Your task to perform on an android device: toggle notifications settings in the gmail app Image 0: 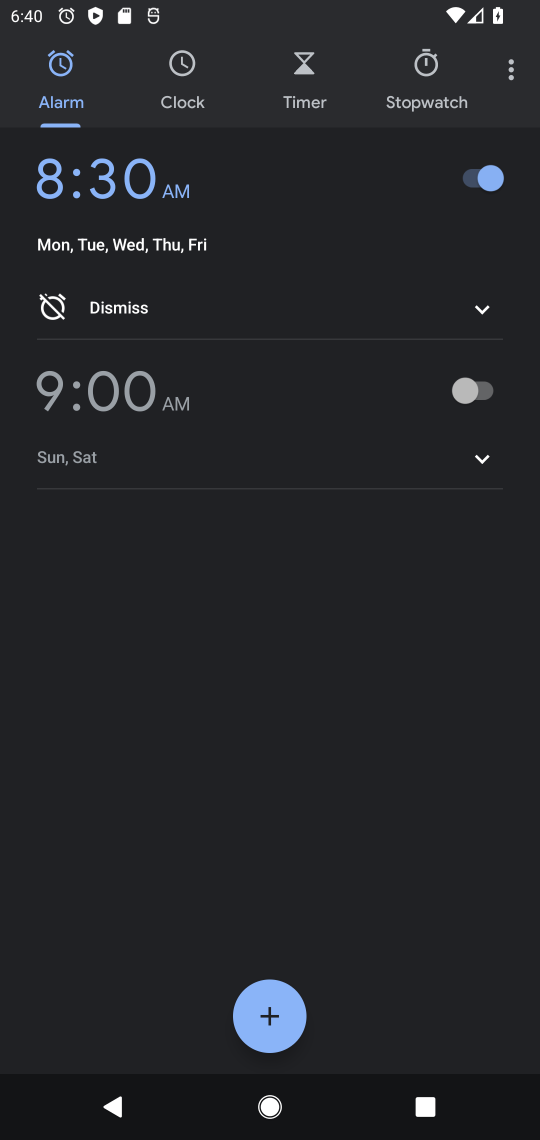
Step 0: press home button
Your task to perform on an android device: toggle notifications settings in the gmail app Image 1: 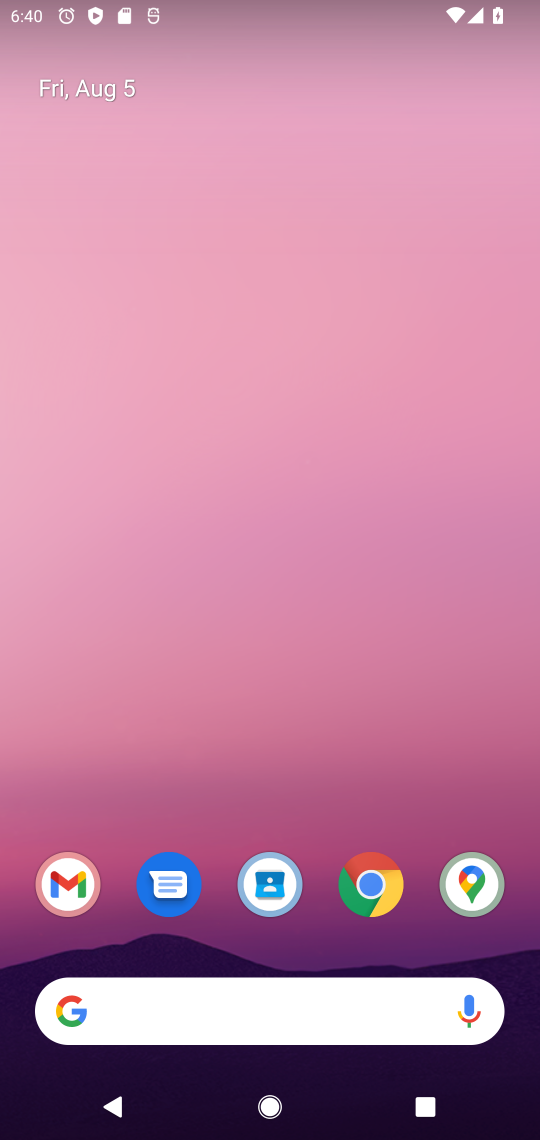
Step 1: drag from (323, 827) to (401, 119)
Your task to perform on an android device: toggle notifications settings in the gmail app Image 2: 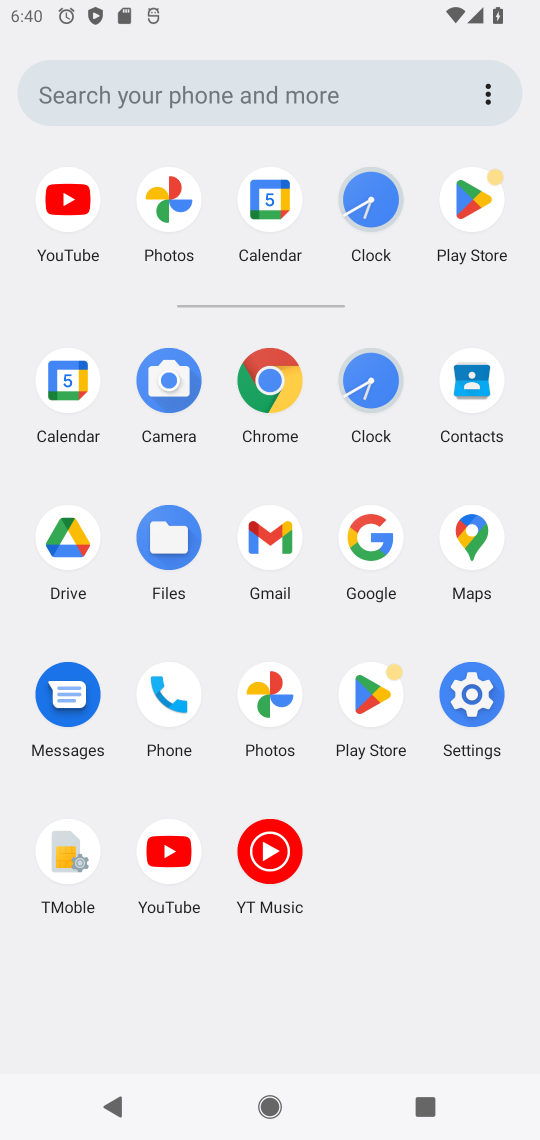
Step 2: click (265, 522)
Your task to perform on an android device: toggle notifications settings in the gmail app Image 3: 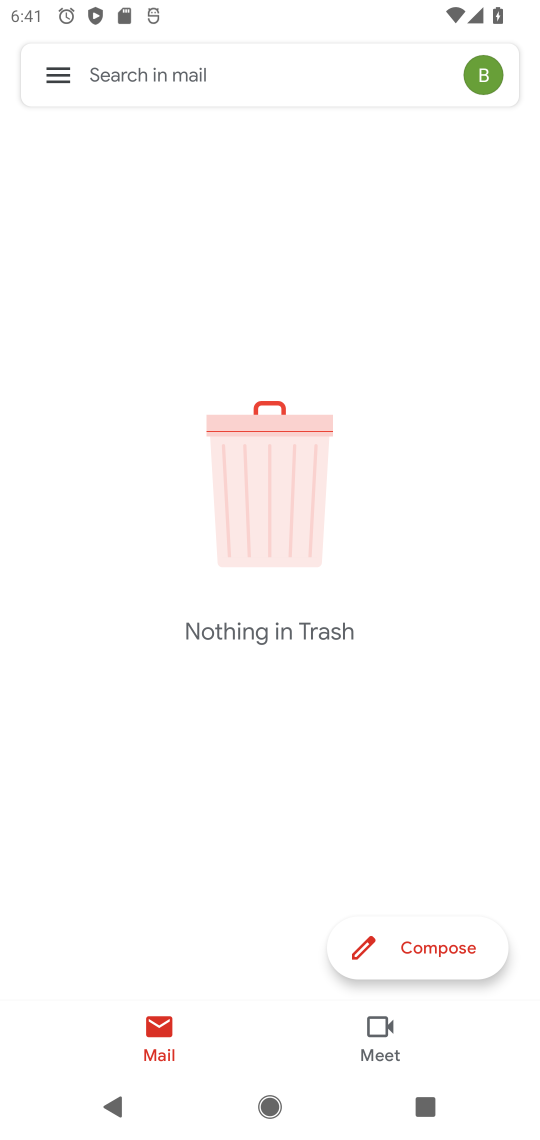
Step 3: click (50, 66)
Your task to perform on an android device: toggle notifications settings in the gmail app Image 4: 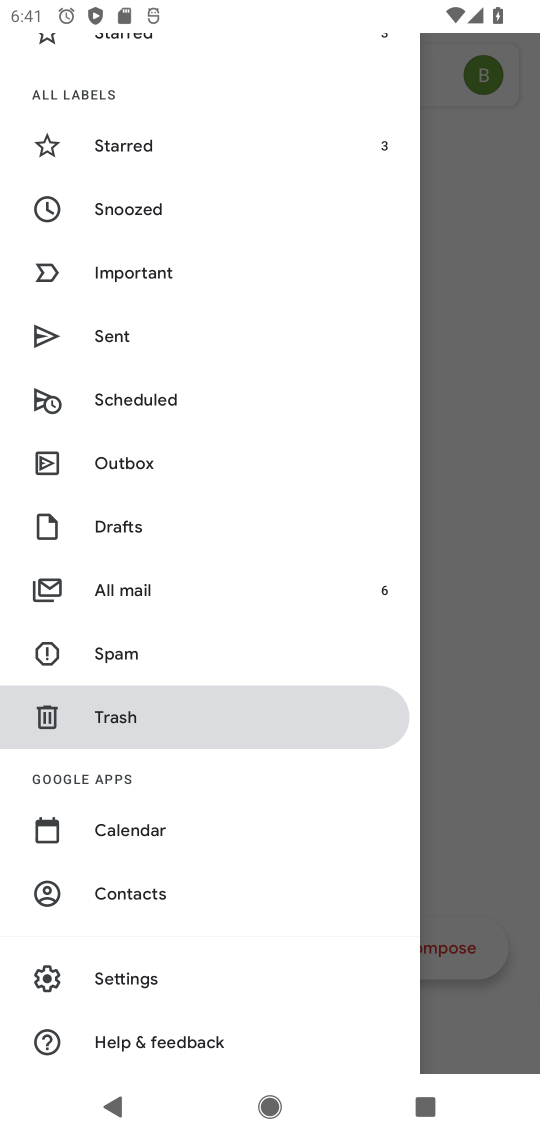
Step 4: click (170, 972)
Your task to perform on an android device: toggle notifications settings in the gmail app Image 5: 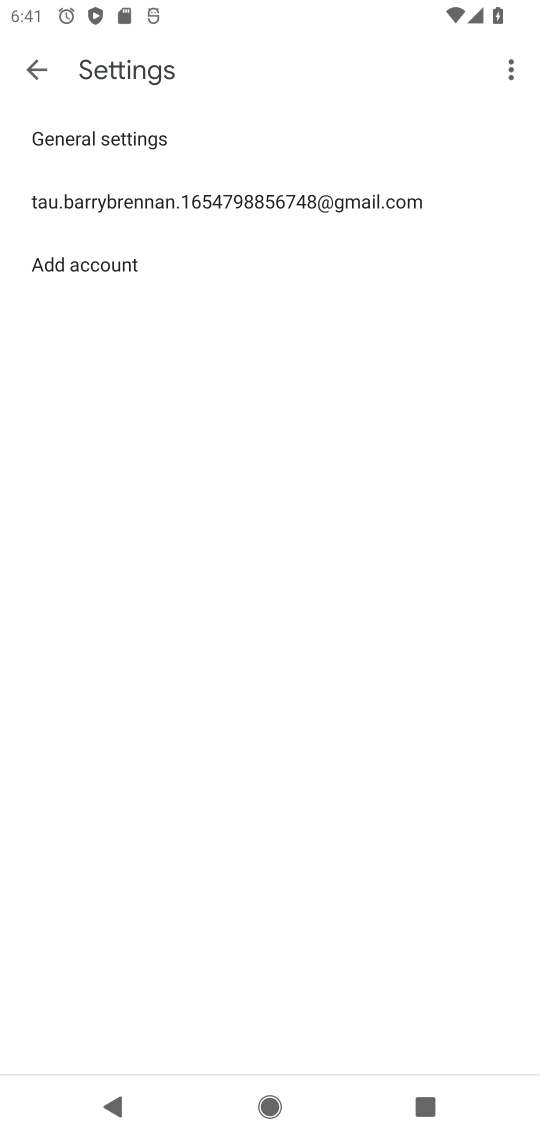
Step 5: click (186, 133)
Your task to perform on an android device: toggle notifications settings in the gmail app Image 6: 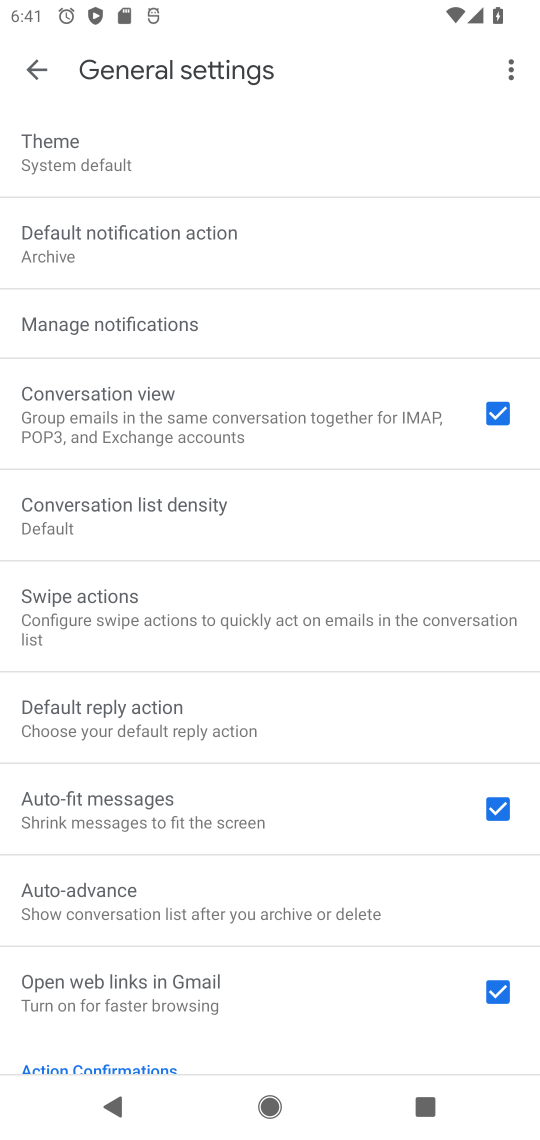
Step 6: click (217, 316)
Your task to perform on an android device: toggle notifications settings in the gmail app Image 7: 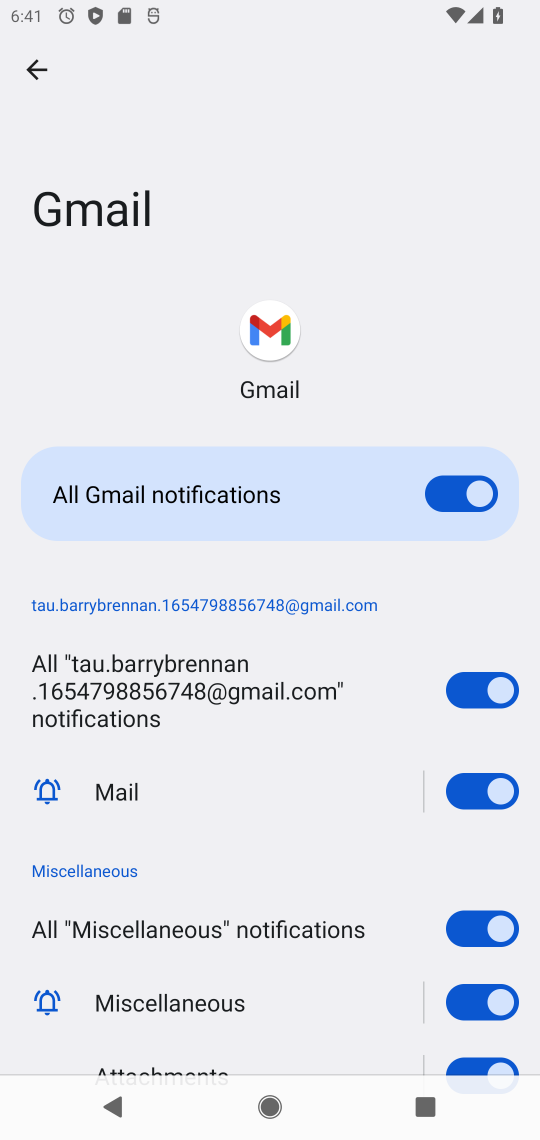
Step 7: click (452, 481)
Your task to perform on an android device: toggle notifications settings in the gmail app Image 8: 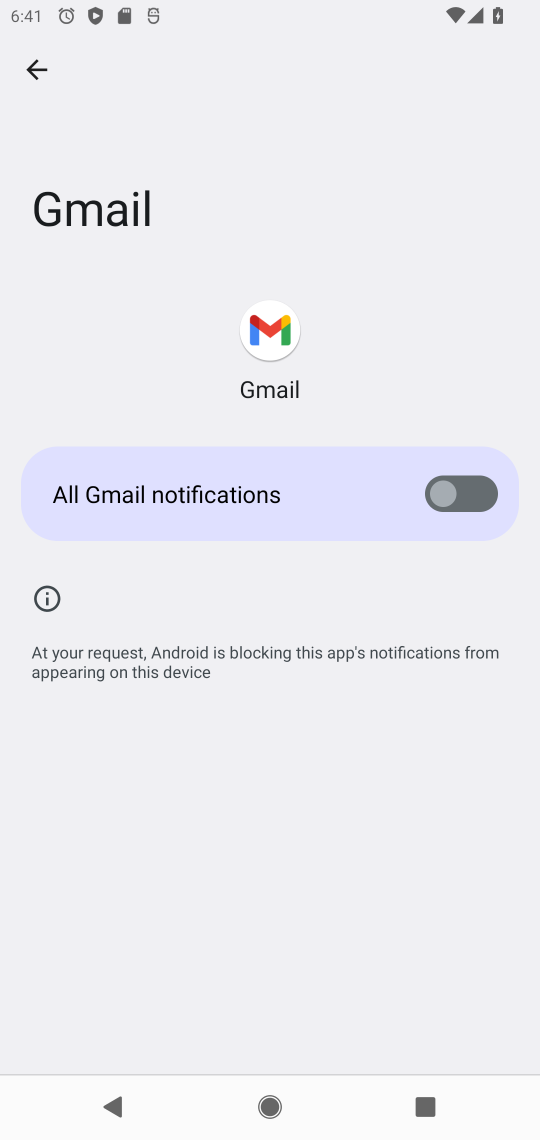
Step 8: task complete